Your task to perform on an android device: Open Amazon Image 0: 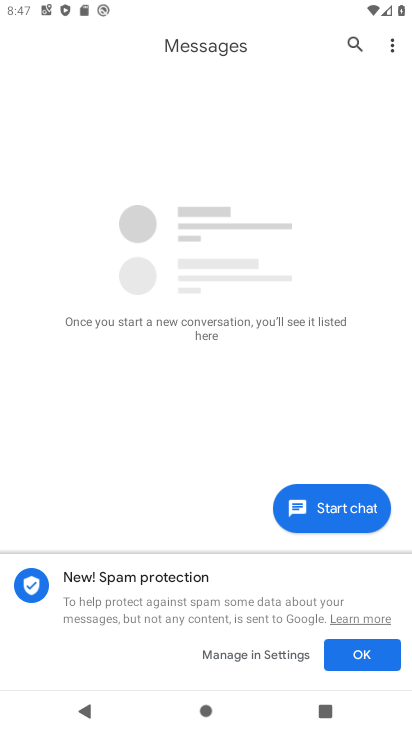
Step 0: press home button
Your task to perform on an android device: Open Amazon Image 1: 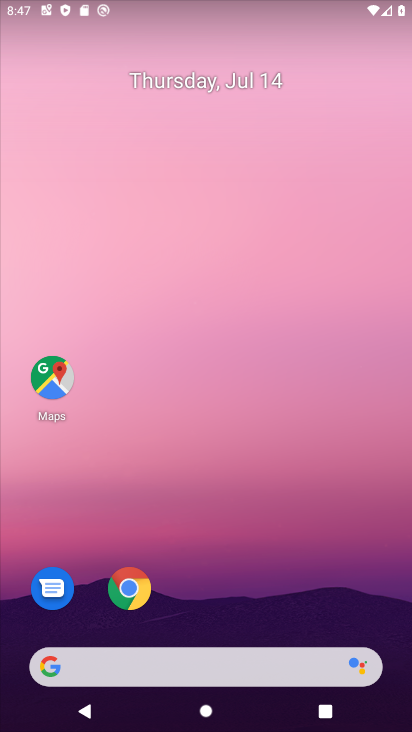
Step 1: click (129, 590)
Your task to perform on an android device: Open Amazon Image 2: 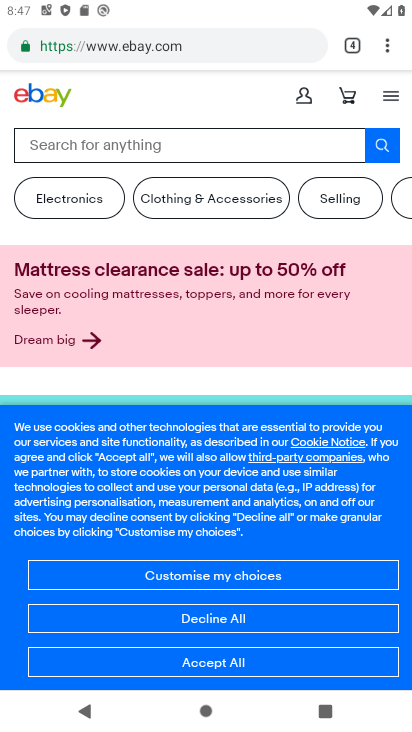
Step 2: press back button
Your task to perform on an android device: Open Amazon Image 3: 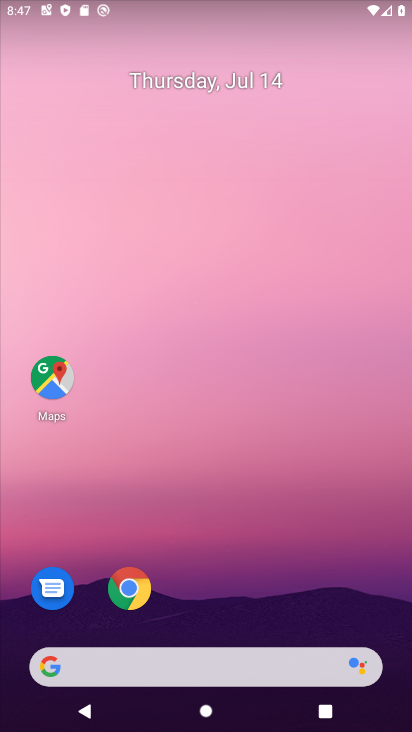
Step 3: click (137, 589)
Your task to perform on an android device: Open Amazon Image 4: 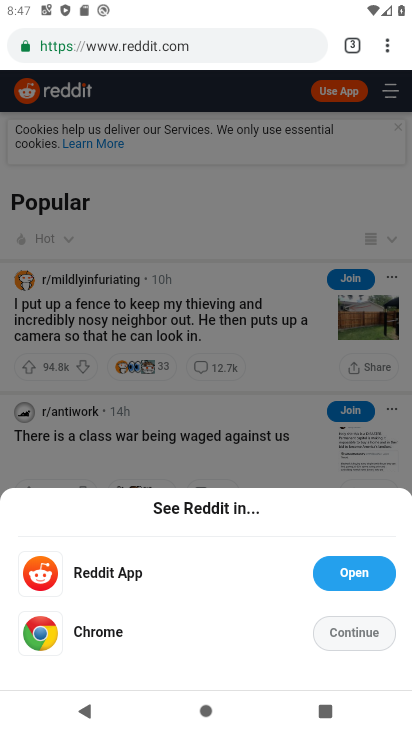
Step 4: click (351, 48)
Your task to perform on an android device: Open Amazon Image 5: 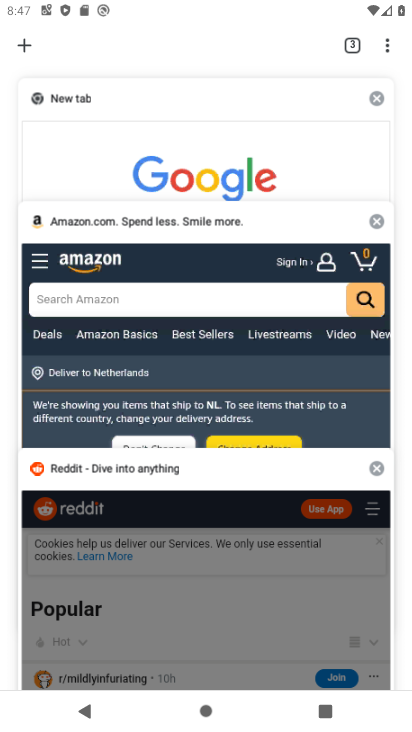
Step 5: click (23, 45)
Your task to perform on an android device: Open Amazon Image 6: 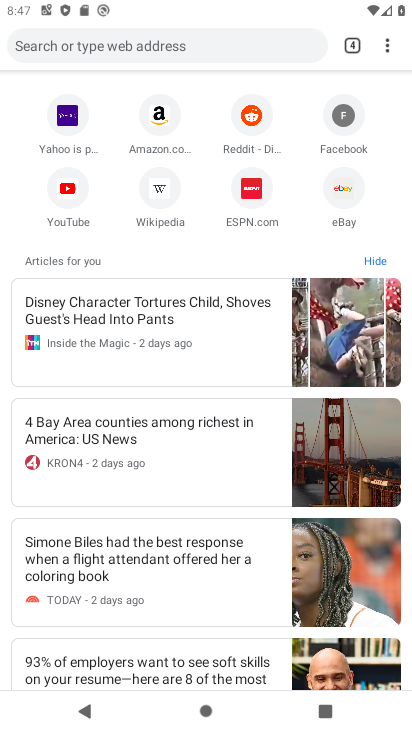
Step 6: click (161, 114)
Your task to perform on an android device: Open Amazon Image 7: 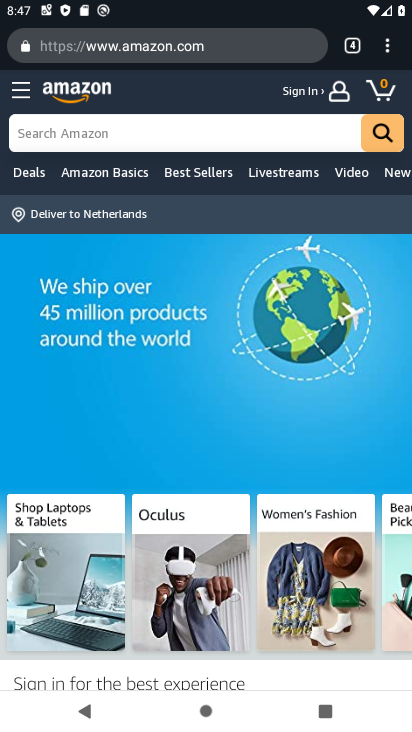
Step 7: task complete